Your task to perform on an android device: Open notification settings Image 0: 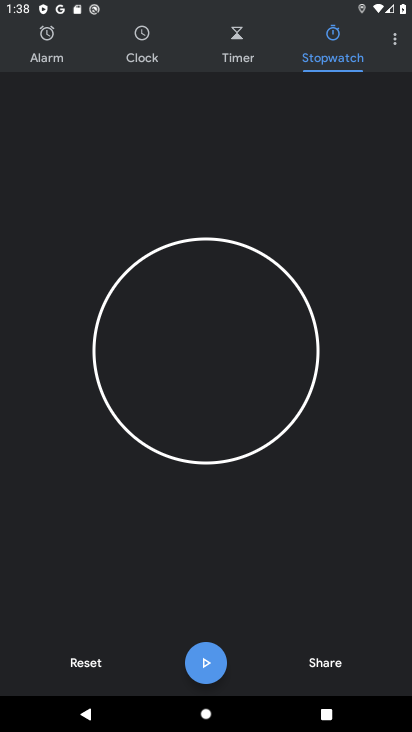
Step 0: press home button
Your task to perform on an android device: Open notification settings Image 1: 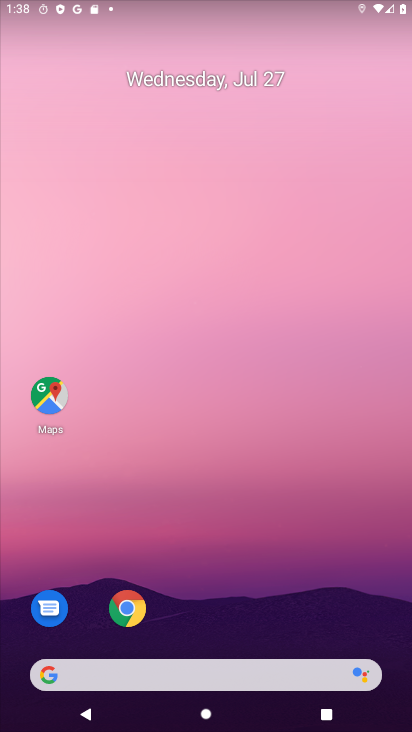
Step 1: drag from (219, 530) to (206, 127)
Your task to perform on an android device: Open notification settings Image 2: 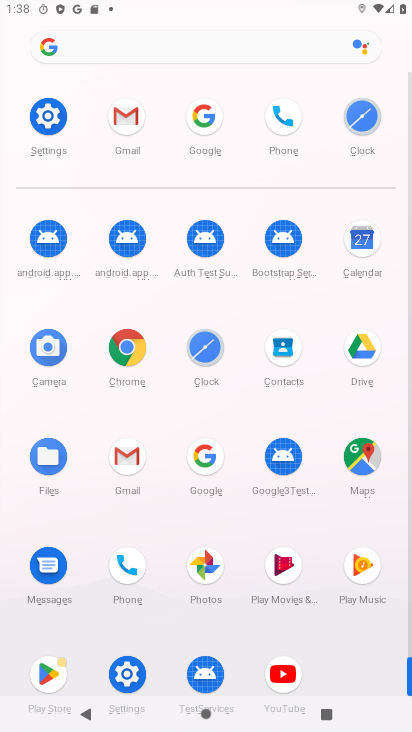
Step 2: click (54, 126)
Your task to perform on an android device: Open notification settings Image 3: 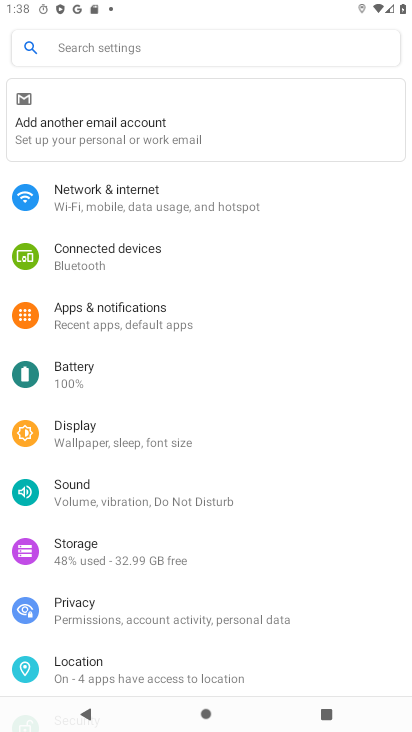
Step 3: click (89, 318)
Your task to perform on an android device: Open notification settings Image 4: 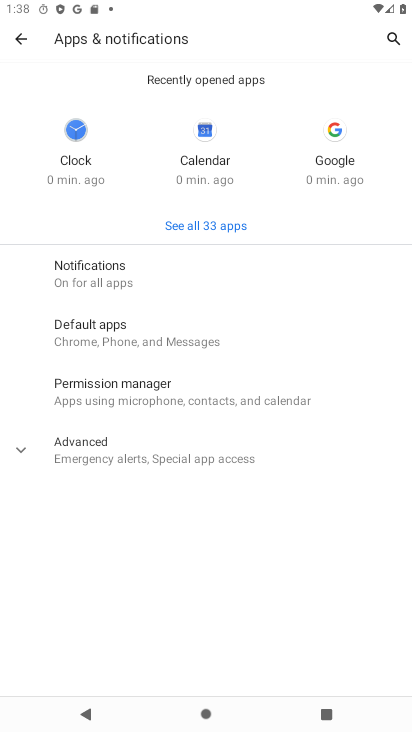
Step 4: click (150, 275)
Your task to perform on an android device: Open notification settings Image 5: 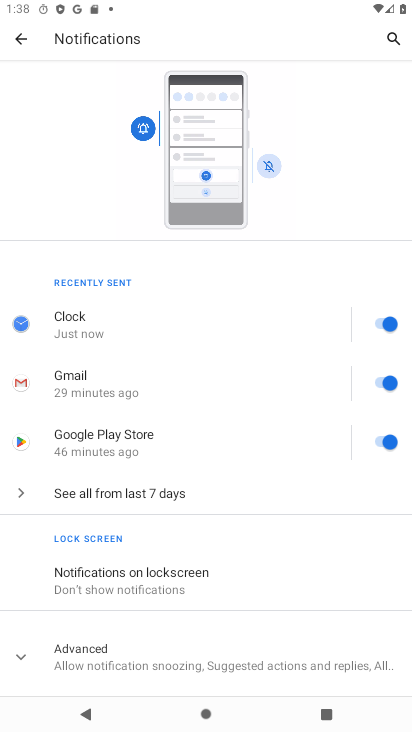
Step 5: task complete